Your task to perform on an android device: What is the capital of Switzerland? Image 0: 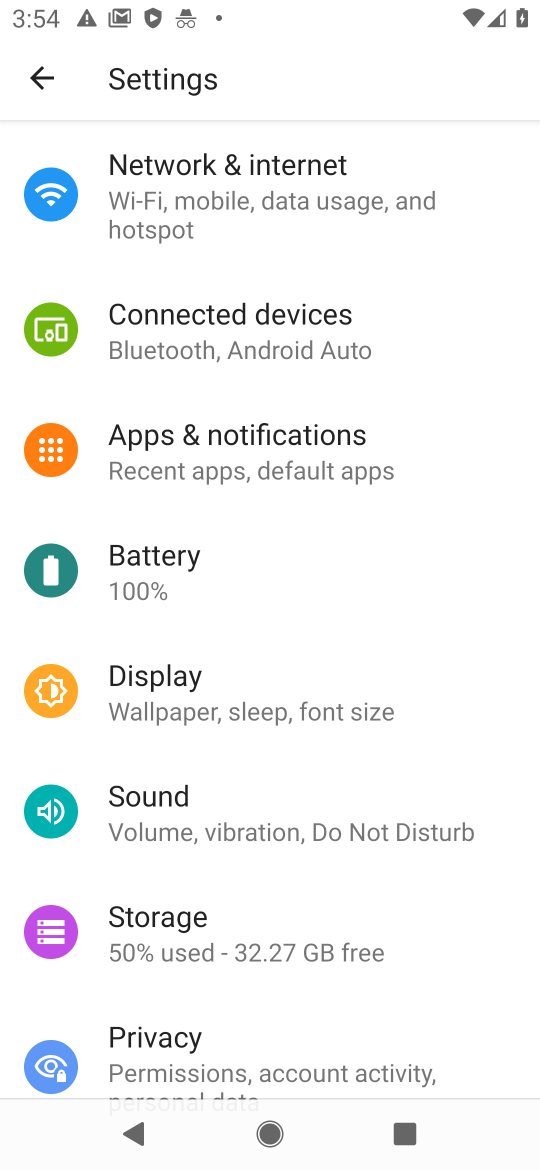
Step 0: press home button
Your task to perform on an android device: What is the capital of Switzerland? Image 1: 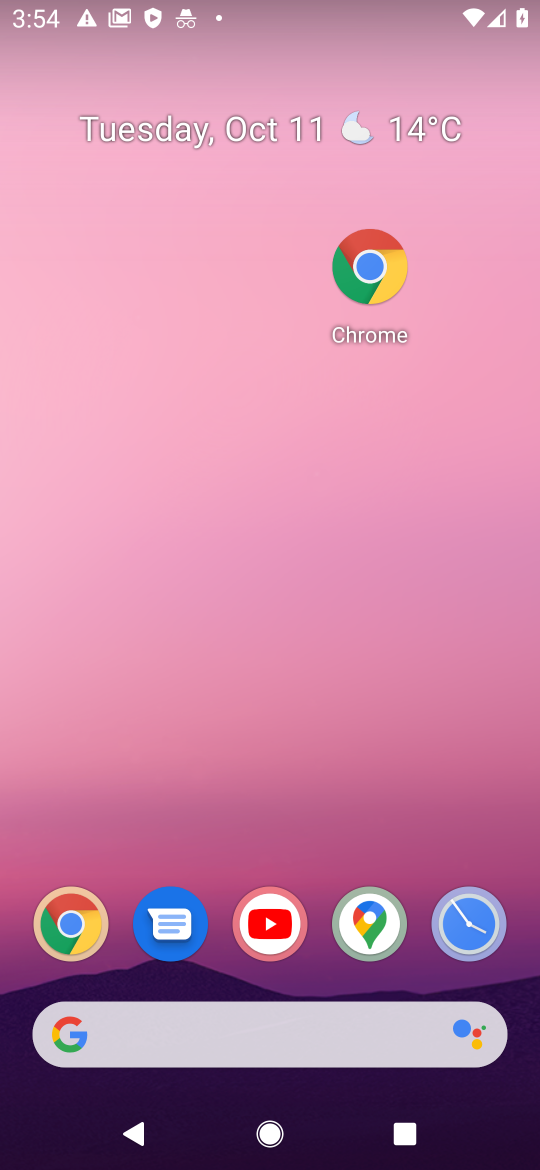
Step 1: click (68, 939)
Your task to perform on an android device: What is the capital of Switzerland? Image 2: 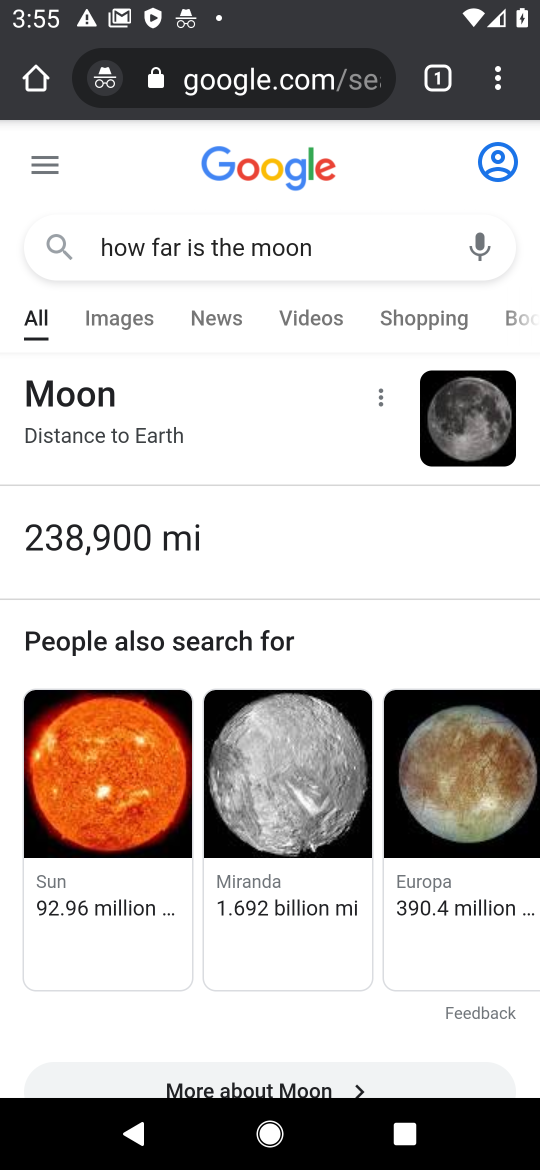
Step 2: click (267, 110)
Your task to perform on an android device: What is the capital of Switzerland? Image 3: 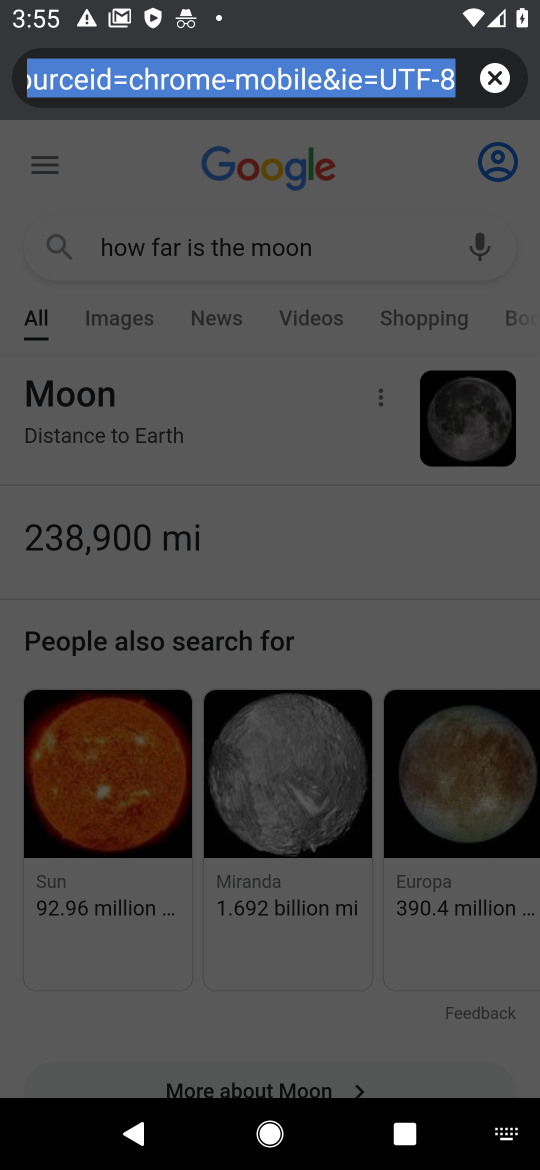
Step 3: type "capital of Switzerland?"
Your task to perform on an android device: What is the capital of Switzerland? Image 4: 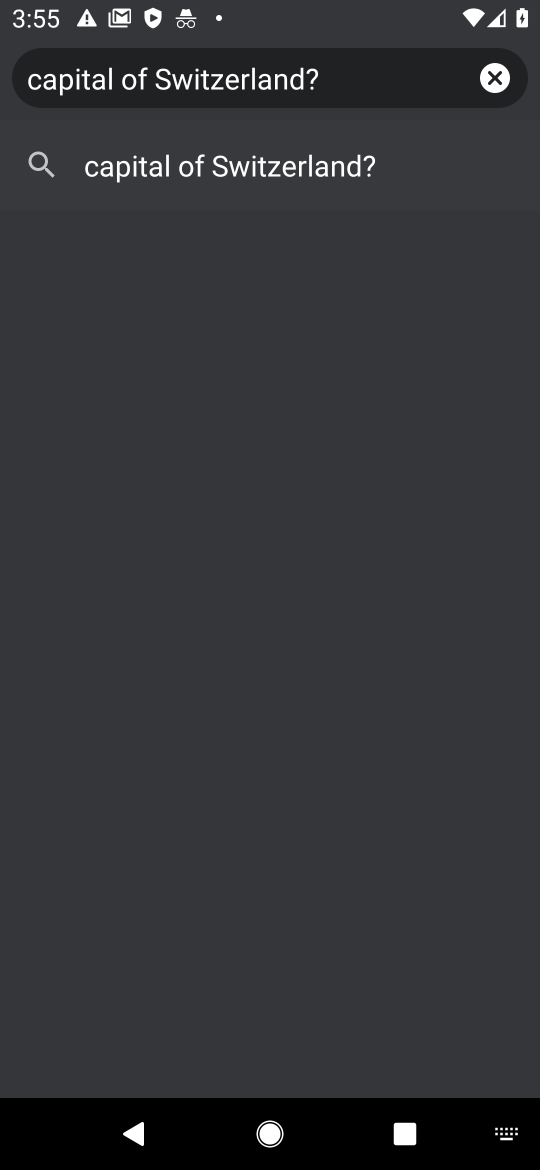
Step 4: click (240, 162)
Your task to perform on an android device: What is the capital of Switzerland? Image 5: 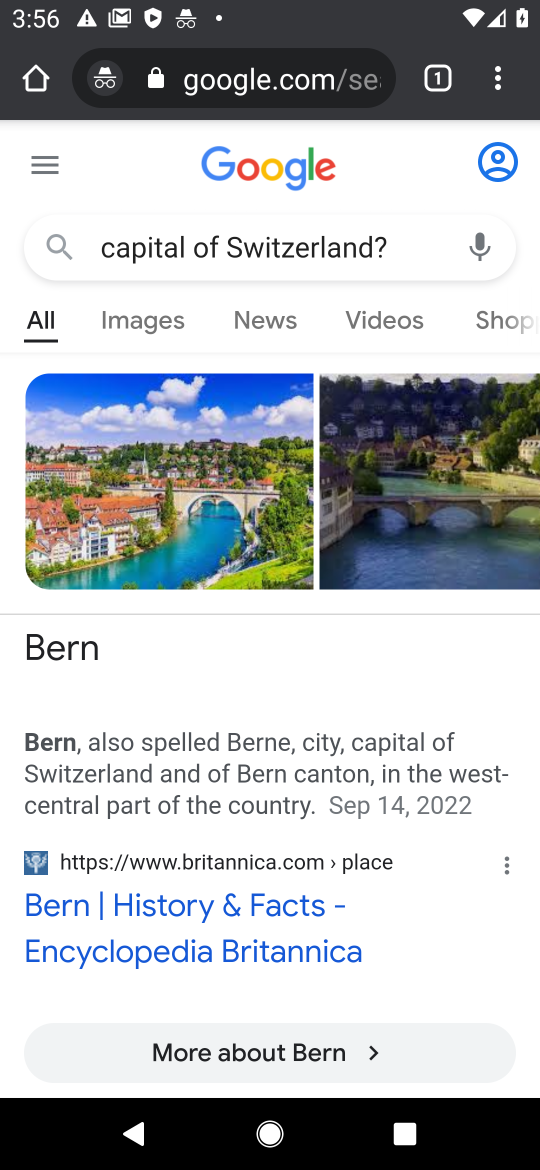
Step 5: task complete